Your task to perform on an android device: open app "Grab" (install if not already installed), go to login, and select forgot password Image 0: 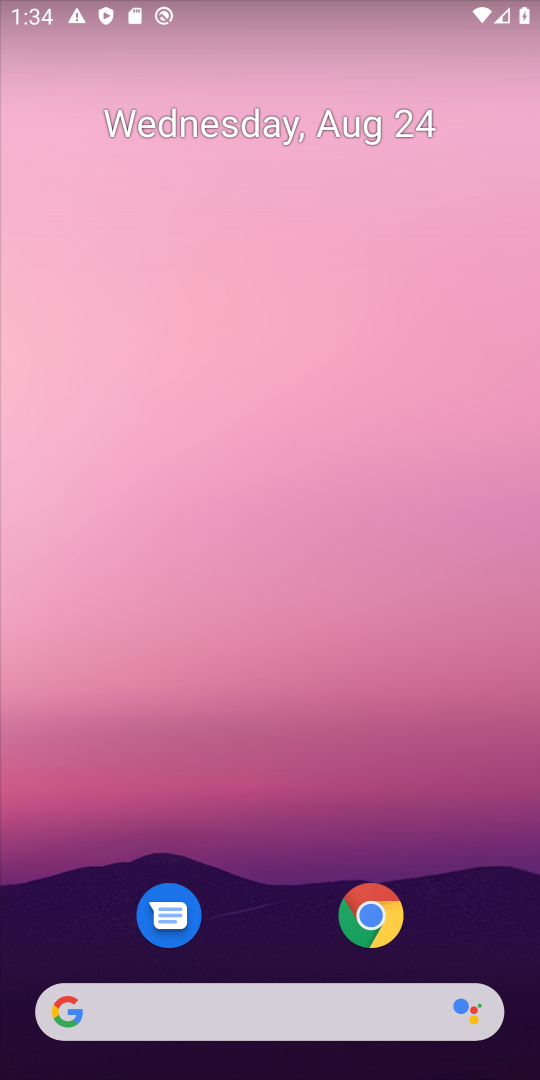
Step 0: drag from (276, 883) to (293, 226)
Your task to perform on an android device: open app "Grab" (install if not already installed), go to login, and select forgot password Image 1: 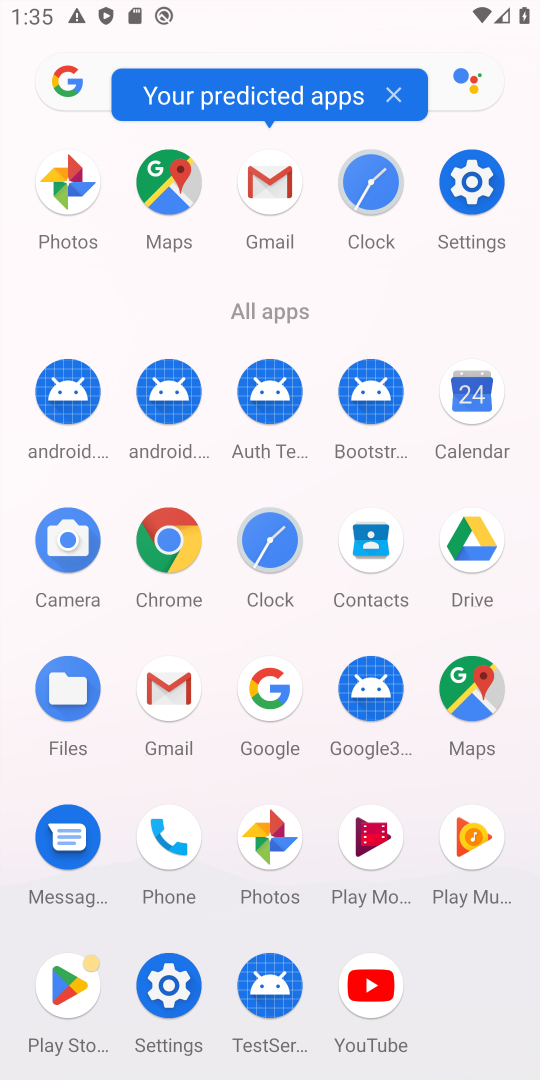
Step 1: click (75, 969)
Your task to perform on an android device: open app "Grab" (install if not already installed), go to login, and select forgot password Image 2: 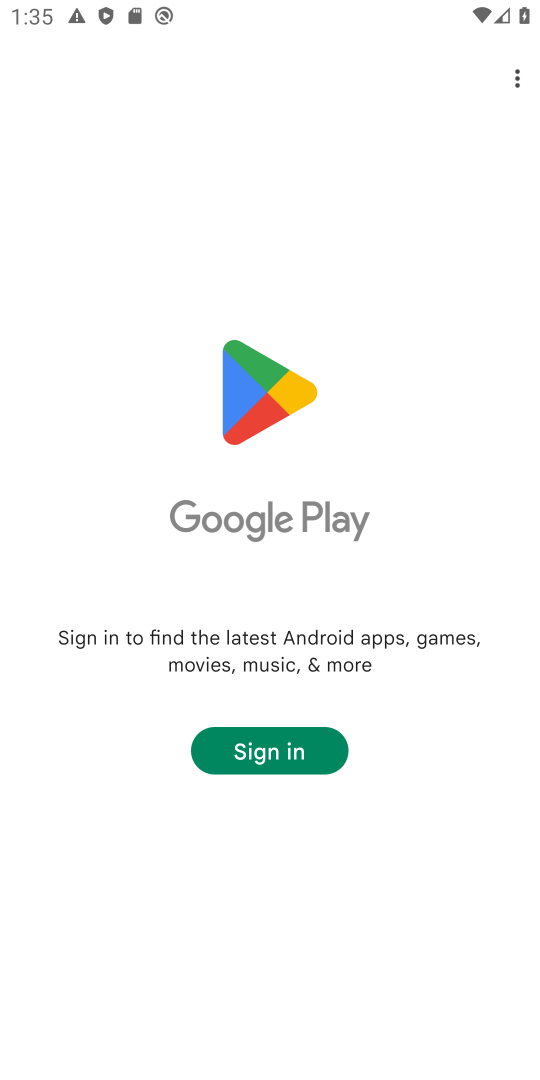
Step 2: task complete